Your task to perform on an android device: Open Google Image 0: 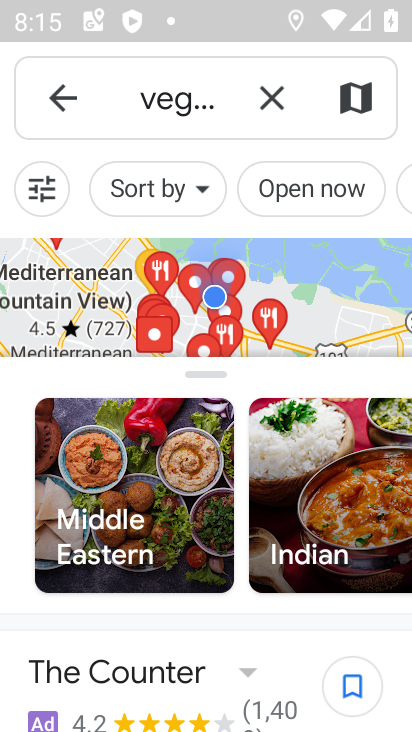
Step 0: press home button
Your task to perform on an android device: Open Google Image 1: 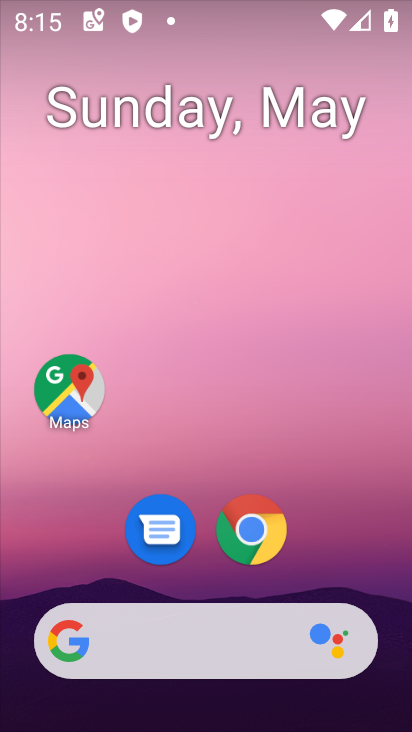
Step 1: drag from (342, 579) to (316, 14)
Your task to perform on an android device: Open Google Image 2: 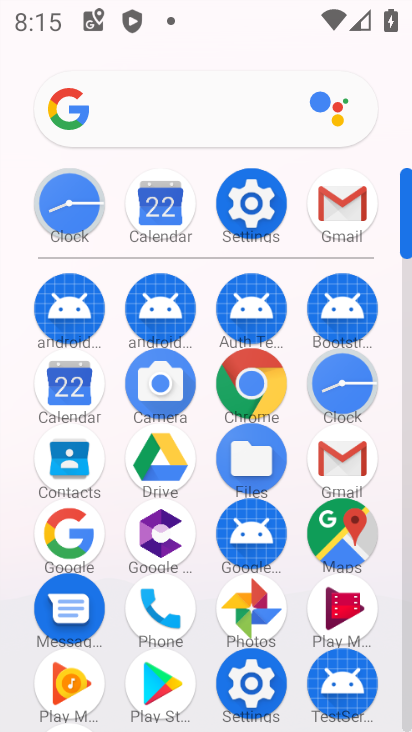
Step 2: click (48, 529)
Your task to perform on an android device: Open Google Image 3: 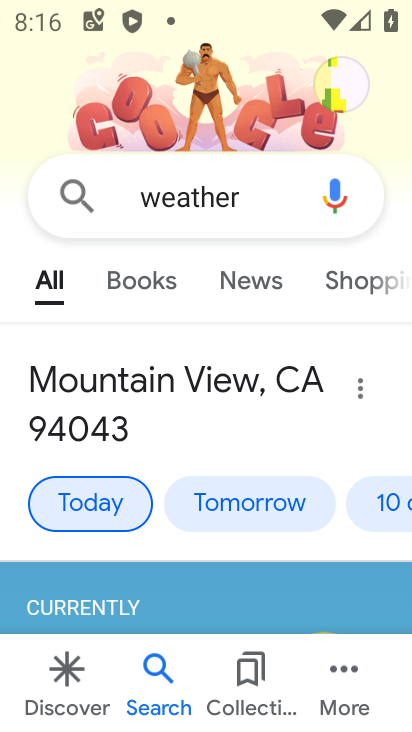
Step 3: task complete